Your task to perform on an android device: see sites visited before in the chrome app Image 0: 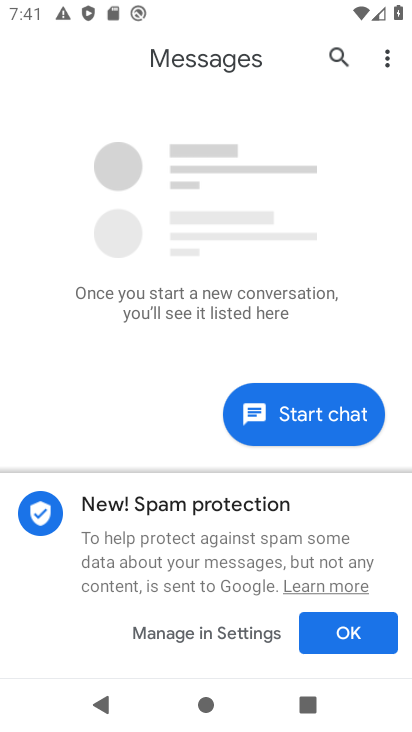
Step 0: press home button
Your task to perform on an android device: see sites visited before in the chrome app Image 1: 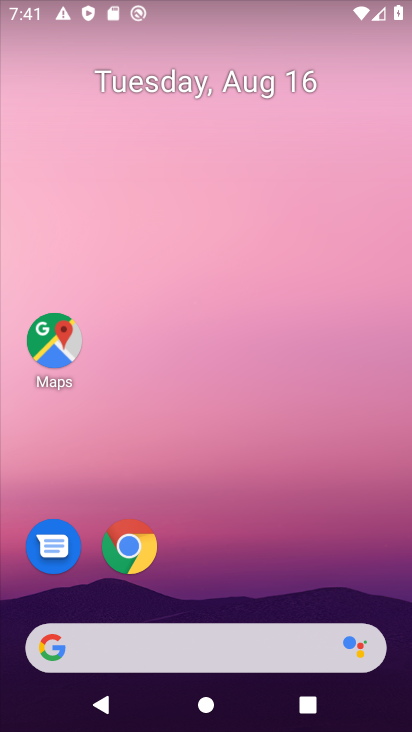
Step 1: click (126, 542)
Your task to perform on an android device: see sites visited before in the chrome app Image 2: 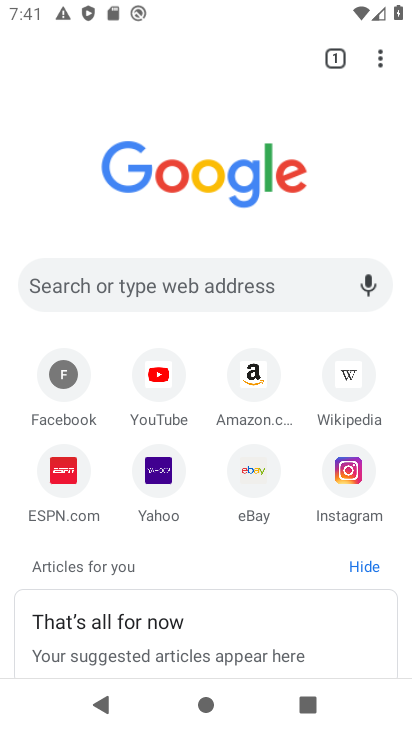
Step 2: click (379, 65)
Your task to perform on an android device: see sites visited before in the chrome app Image 3: 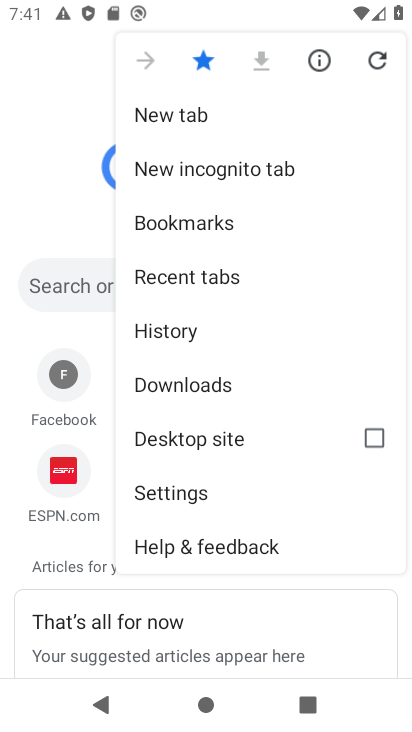
Step 3: click (219, 270)
Your task to perform on an android device: see sites visited before in the chrome app Image 4: 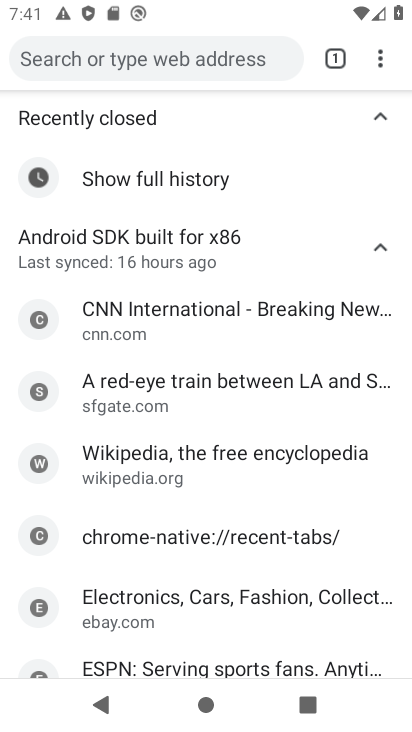
Step 4: task complete